Your task to perform on an android device: Do I have any events today? Image 0: 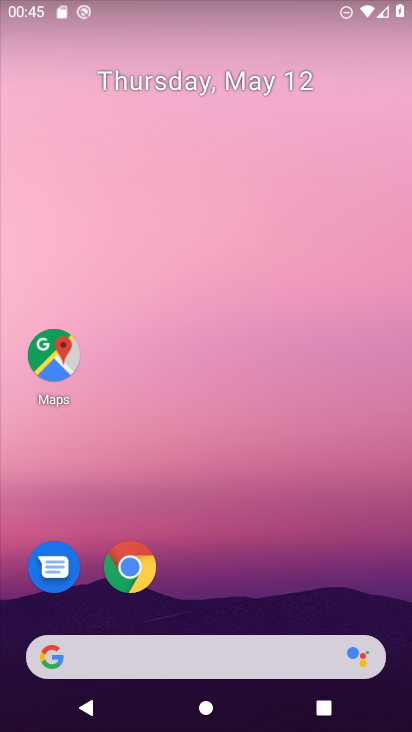
Step 0: drag from (258, 690) to (256, 2)
Your task to perform on an android device: Do I have any events today? Image 1: 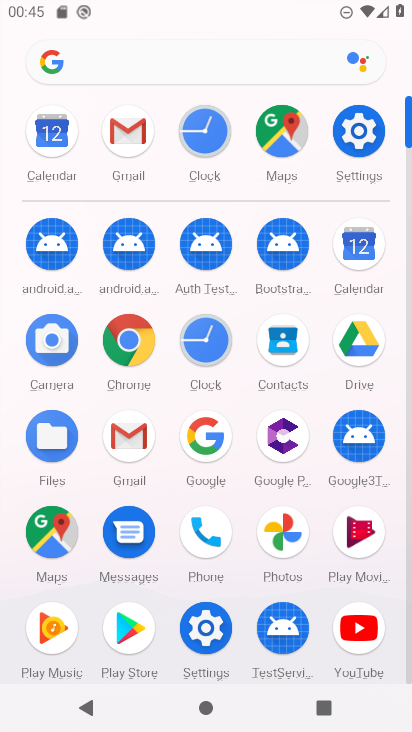
Step 1: click (369, 241)
Your task to perform on an android device: Do I have any events today? Image 2: 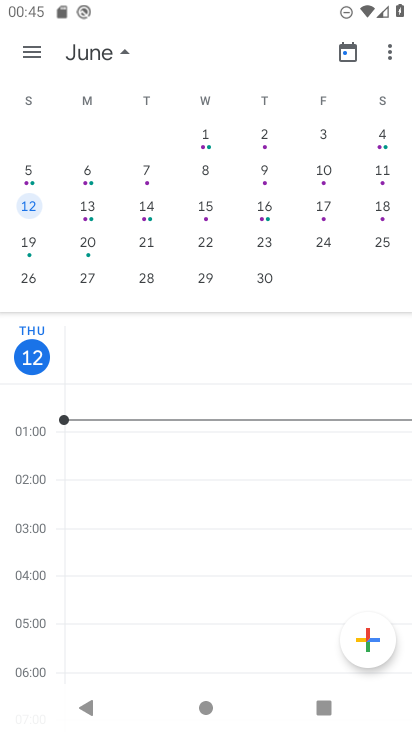
Step 2: task complete